Your task to perform on an android device: allow notifications from all sites in the chrome app Image 0: 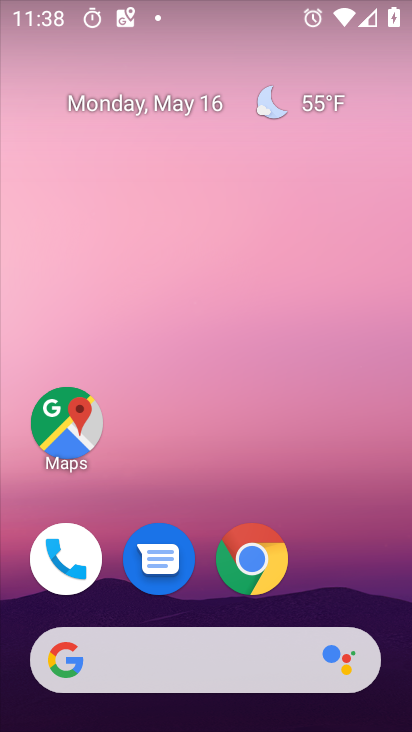
Step 0: click (255, 551)
Your task to perform on an android device: allow notifications from all sites in the chrome app Image 1: 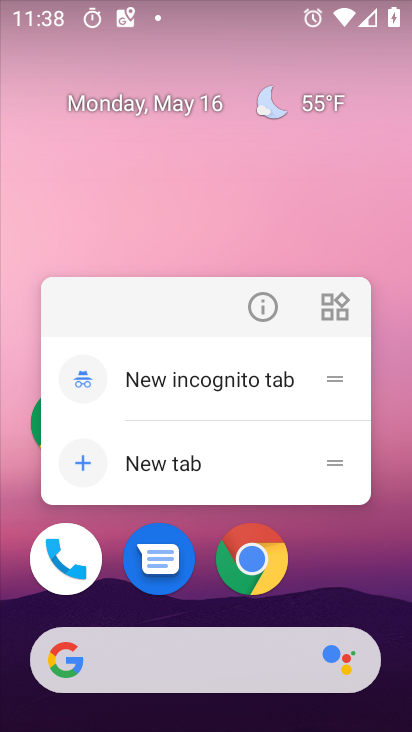
Step 1: click (245, 565)
Your task to perform on an android device: allow notifications from all sites in the chrome app Image 2: 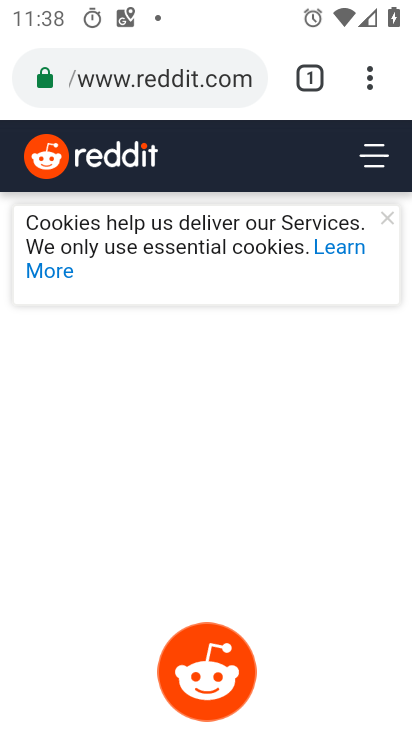
Step 2: drag from (365, 72) to (299, 530)
Your task to perform on an android device: allow notifications from all sites in the chrome app Image 3: 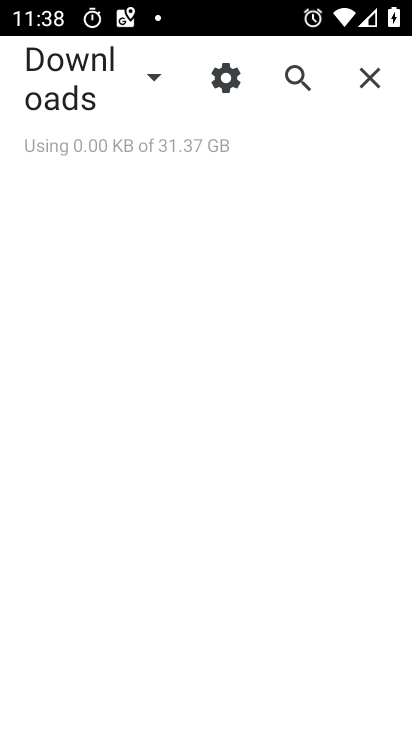
Step 3: click (374, 70)
Your task to perform on an android device: allow notifications from all sites in the chrome app Image 4: 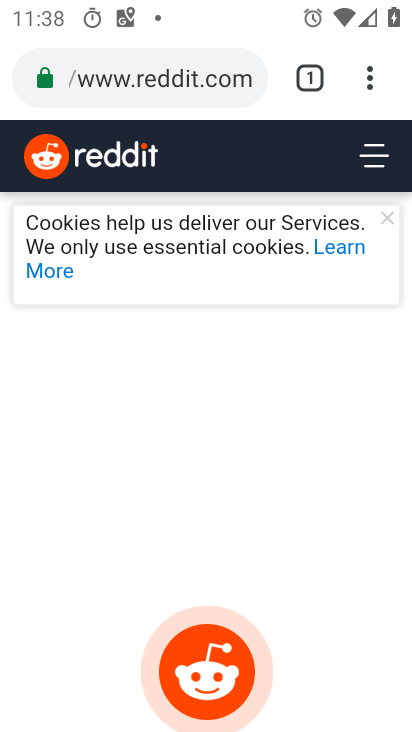
Step 4: drag from (375, 69) to (193, 627)
Your task to perform on an android device: allow notifications from all sites in the chrome app Image 5: 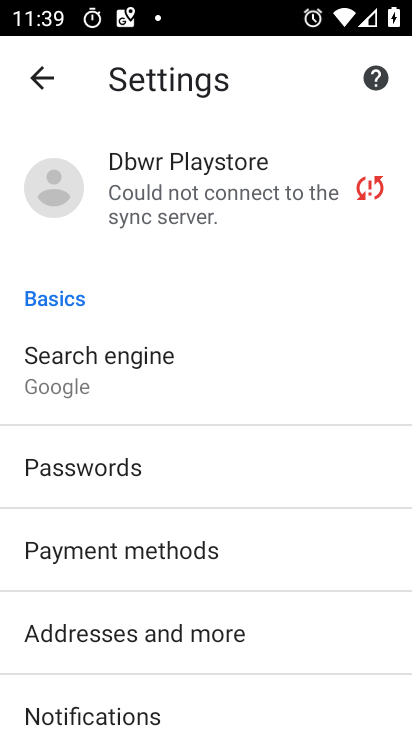
Step 5: drag from (292, 625) to (260, 270)
Your task to perform on an android device: allow notifications from all sites in the chrome app Image 6: 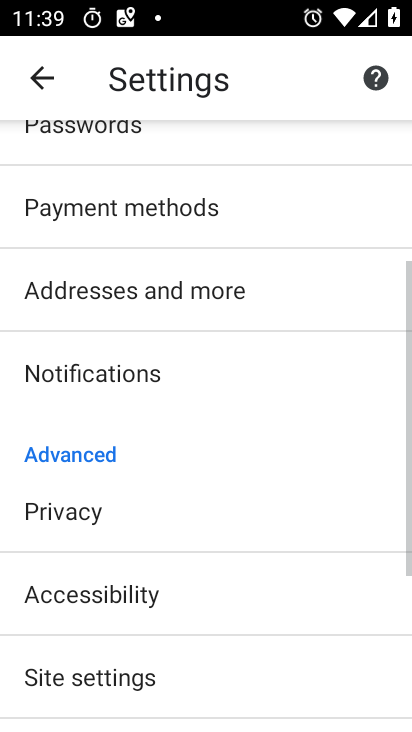
Step 6: drag from (182, 680) to (202, 420)
Your task to perform on an android device: allow notifications from all sites in the chrome app Image 7: 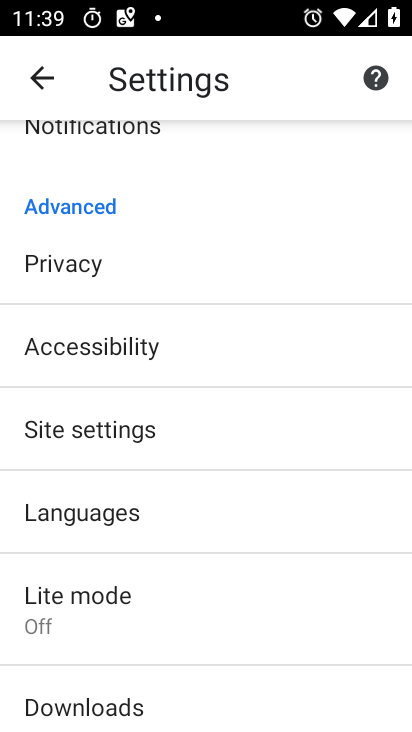
Step 7: click (119, 429)
Your task to perform on an android device: allow notifications from all sites in the chrome app Image 8: 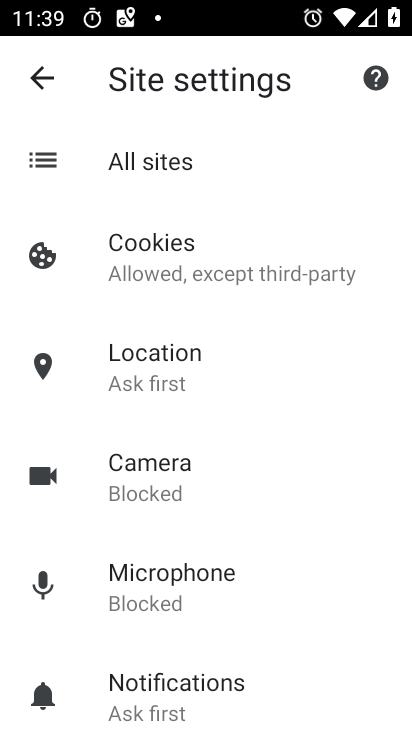
Step 8: drag from (280, 367) to (287, 153)
Your task to perform on an android device: allow notifications from all sites in the chrome app Image 9: 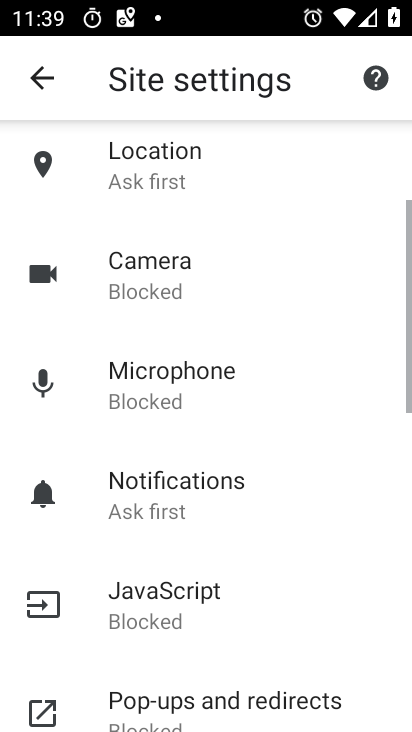
Step 9: click (287, 150)
Your task to perform on an android device: allow notifications from all sites in the chrome app Image 10: 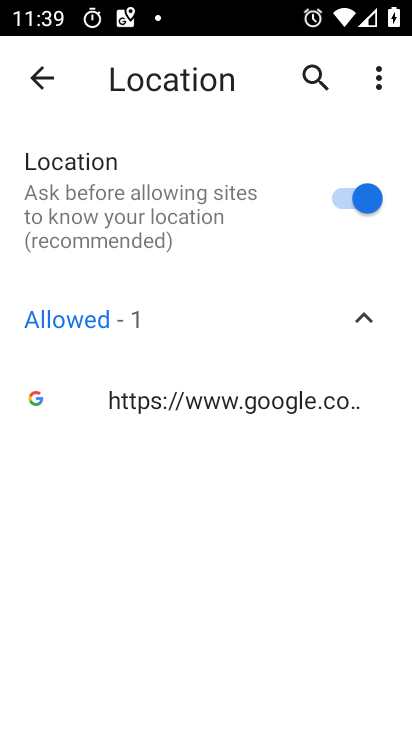
Step 10: click (36, 88)
Your task to perform on an android device: allow notifications from all sites in the chrome app Image 11: 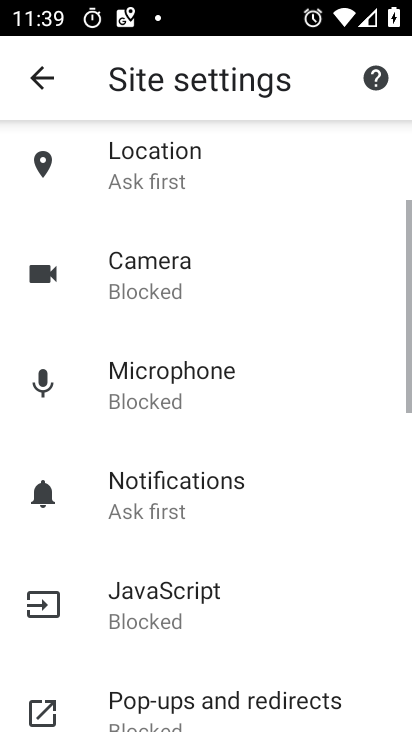
Step 11: click (177, 469)
Your task to perform on an android device: allow notifications from all sites in the chrome app Image 12: 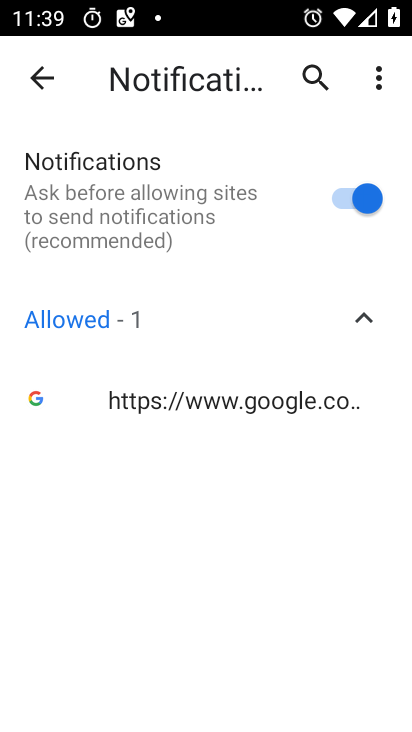
Step 12: task complete